Your task to perform on an android device: turn off notifications in google photos Image 0: 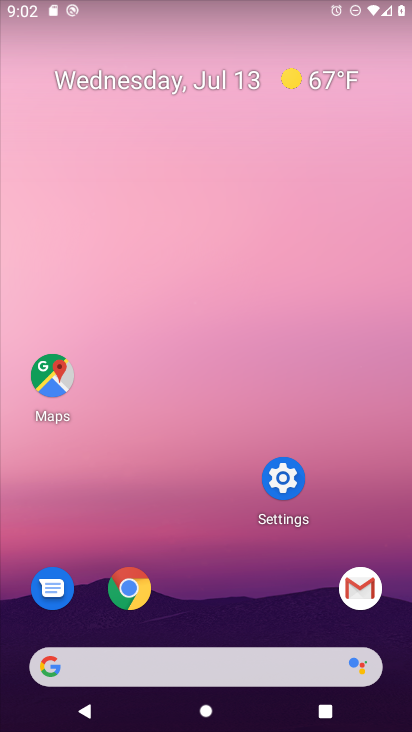
Step 0: drag from (289, 684) to (217, 169)
Your task to perform on an android device: turn off notifications in google photos Image 1: 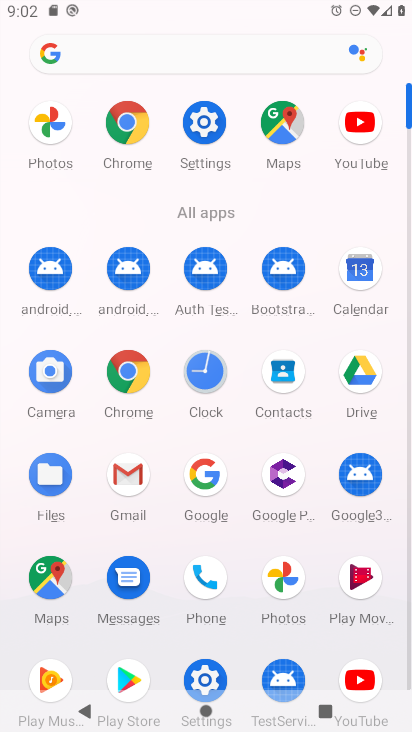
Step 1: click (277, 568)
Your task to perform on an android device: turn off notifications in google photos Image 2: 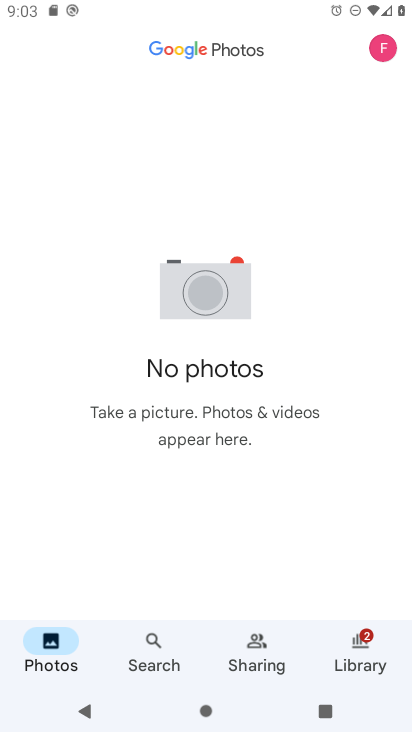
Step 2: click (372, 54)
Your task to perform on an android device: turn off notifications in google photos Image 3: 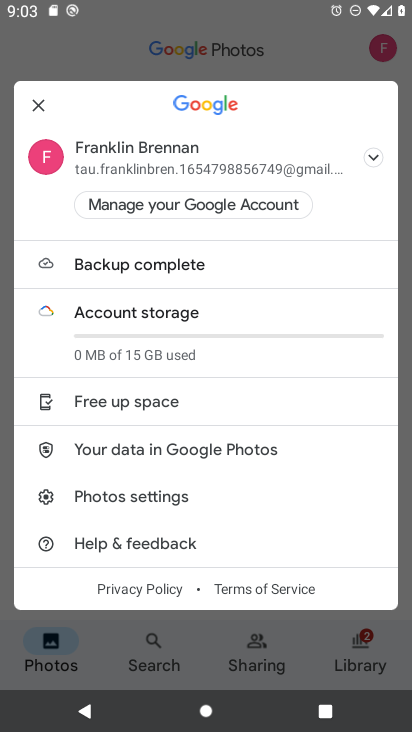
Step 3: click (123, 506)
Your task to perform on an android device: turn off notifications in google photos Image 4: 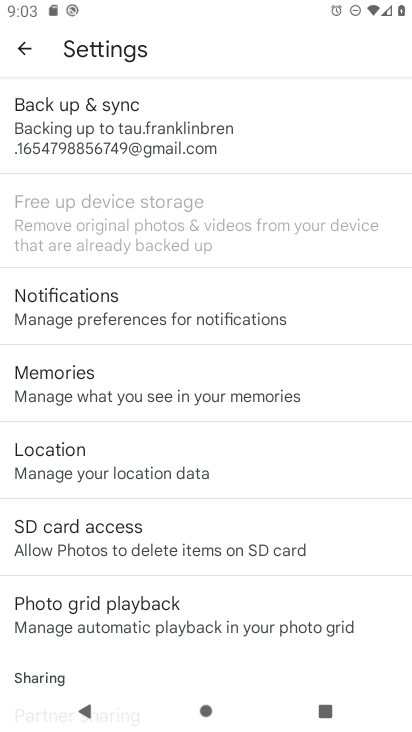
Step 4: click (149, 299)
Your task to perform on an android device: turn off notifications in google photos Image 5: 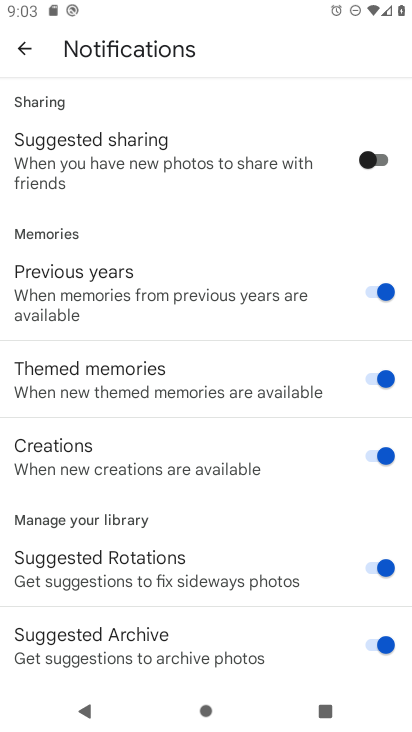
Step 5: drag from (171, 473) to (225, 165)
Your task to perform on an android device: turn off notifications in google photos Image 6: 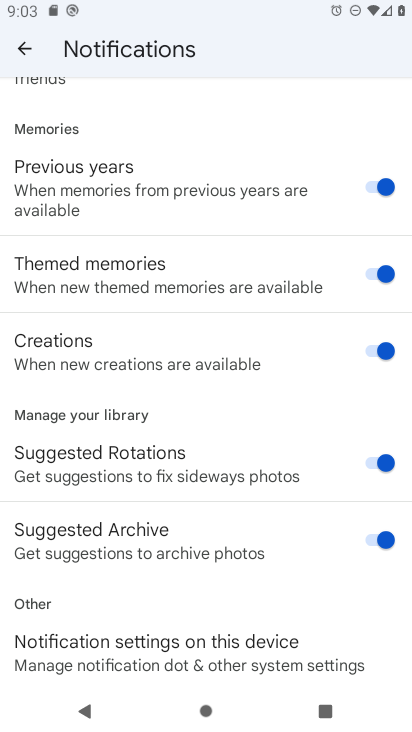
Step 6: drag from (152, 444) to (167, 384)
Your task to perform on an android device: turn off notifications in google photos Image 7: 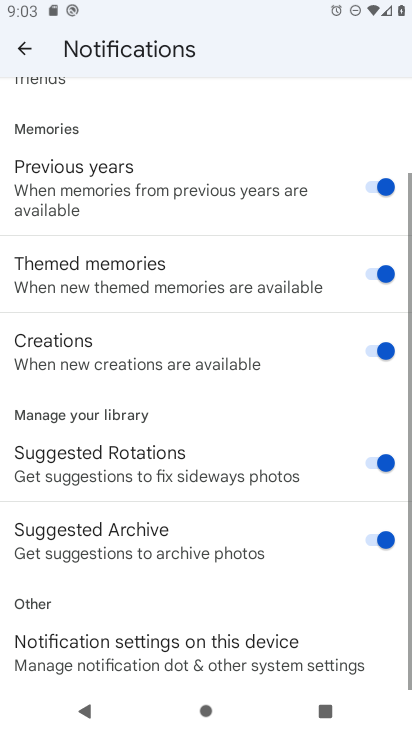
Step 7: click (188, 650)
Your task to perform on an android device: turn off notifications in google photos Image 8: 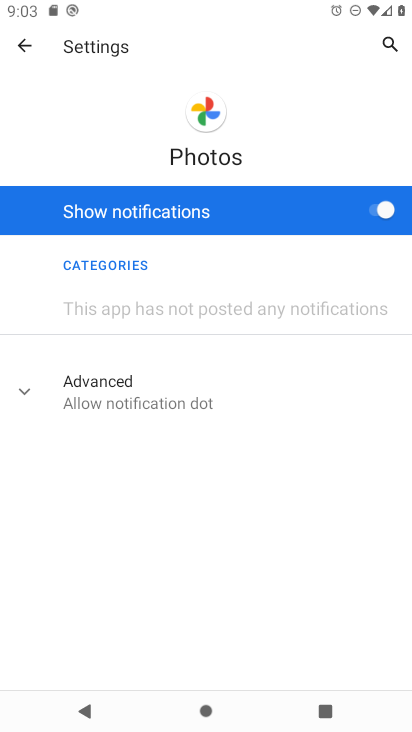
Step 8: click (360, 212)
Your task to perform on an android device: turn off notifications in google photos Image 9: 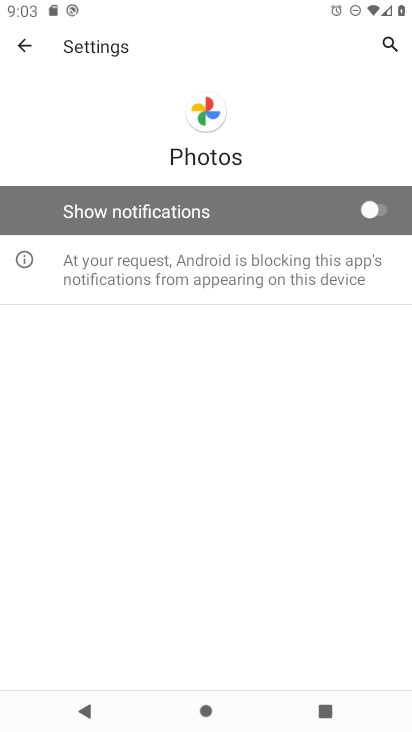
Step 9: task complete